Your task to perform on an android device: Open the calendar app, open the side menu, and click the "Day" option Image 0: 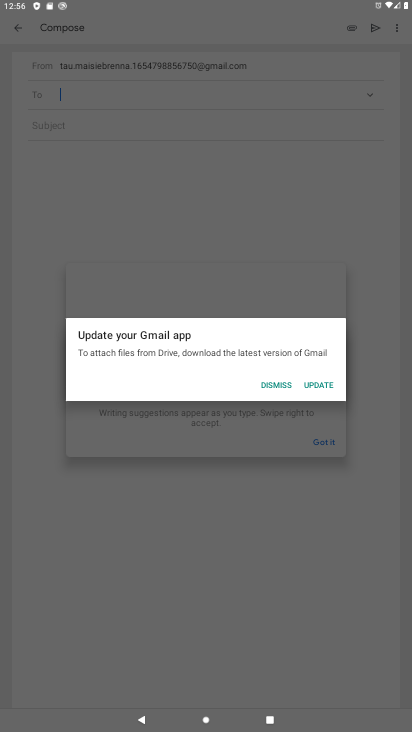
Step 0: press home button
Your task to perform on an android device: Open the calendar app, open the side menu, and click the "Day" option Image 1: 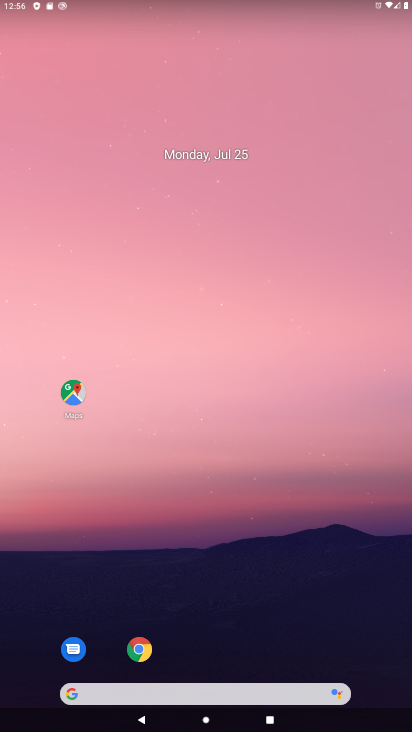
Step 1: drag from (309, 516) to (356, 12)
Your task to perform on an android device: Open the calendar app, open the side menu, and click the "Day" option Image 2: 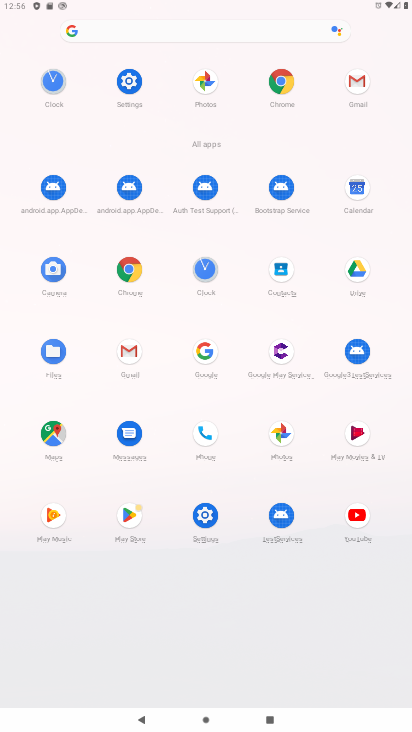
Step 2: click (354, 190)
Your task to perform on an android device: Open the calendar app, open the side menu, and click the "Day" option Image 3: 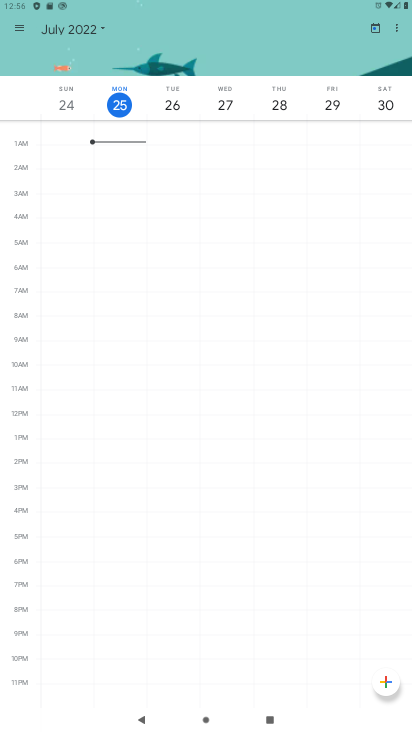
Step 3: click (19, 22)
Your task to perform on an android device: Open the calendar app, open the side menu, and click the "Day" option Image 4: 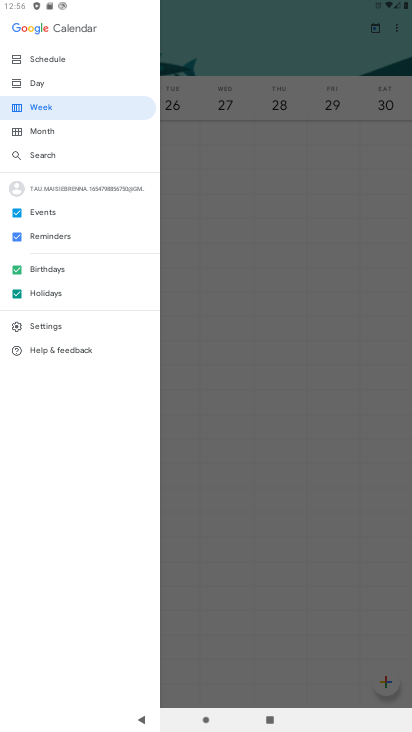
Step 4: click (45, 82)
Your task to perform on an android device: Open the calendar app, open the side menu, and click the "Day" option Image 5: 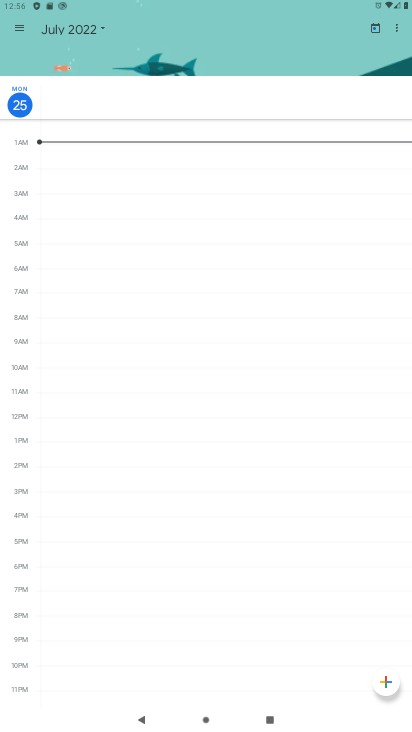
Step 5: task complete